Your task to perform on an android device: Check the weather Image 0: 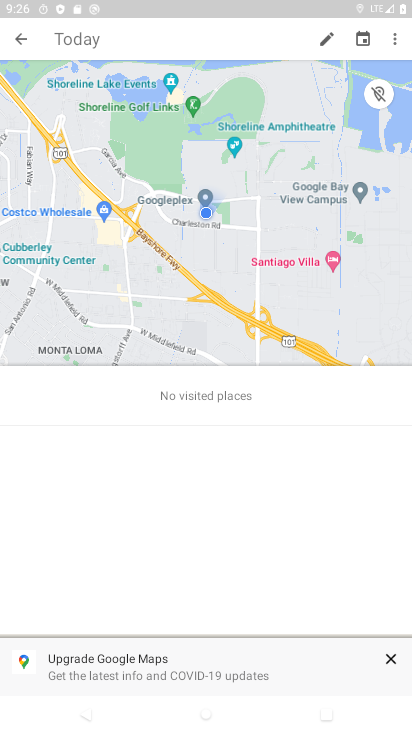
Step 0: press home button
Your task to perform on an android device: Check the weather Image 1: 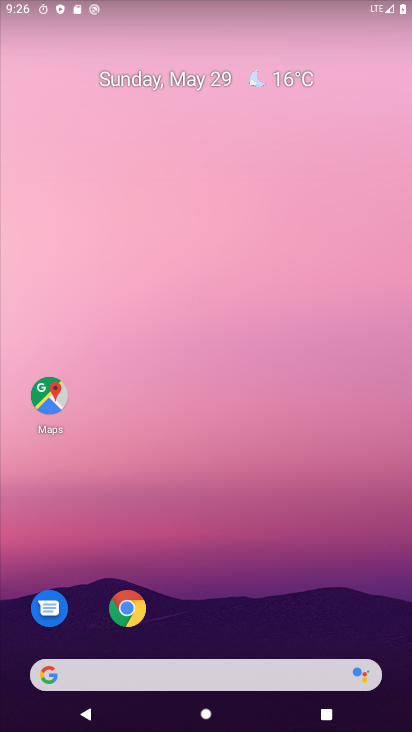
Step 1: drag from (214, 625) to (260, 38)
Your task to perform on an android device: Check the weather Image 2: 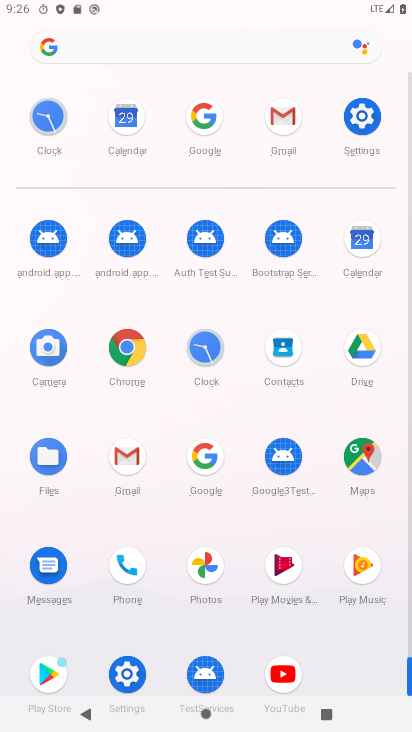
Step 2: click (202, 138)
Your task to perform on an android device: Check the weather Image 3: 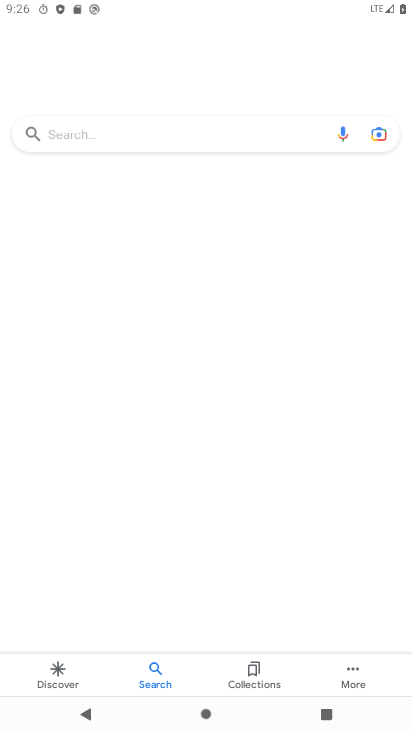
Step 3: click (157, 145)
Your task to perform on an android device: Check the weather Image 4: 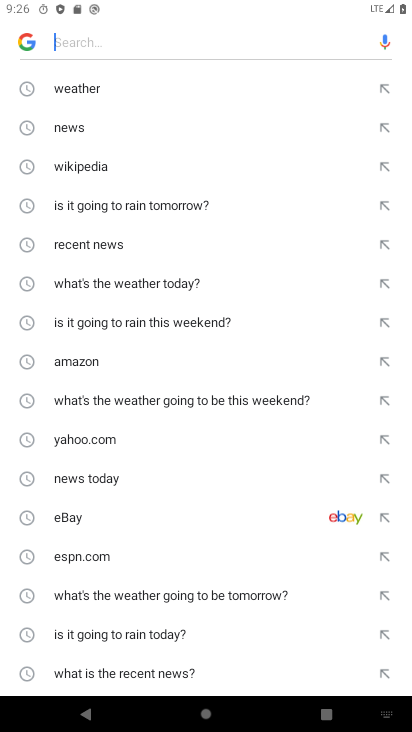
Step 4: click (82, 91)
Your task to perform on an android device: Check the weather Image 5: 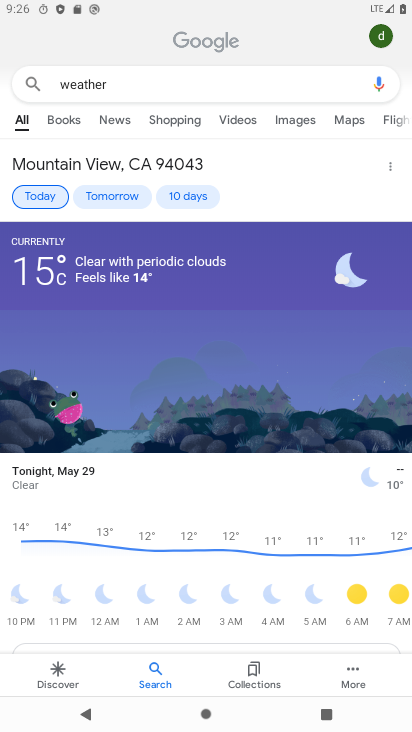
Step 5: task complete